Your task to perform on an android device: open device folders in google photos Image 0: 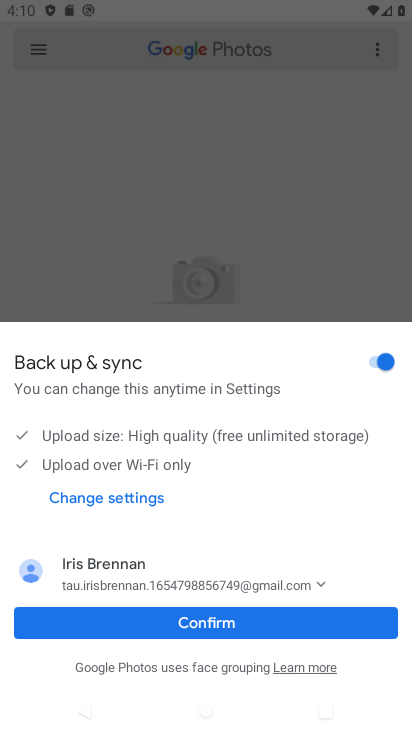
Step 0: press home button
Your task to perform on an android device: open device folders in google photos Image 1: 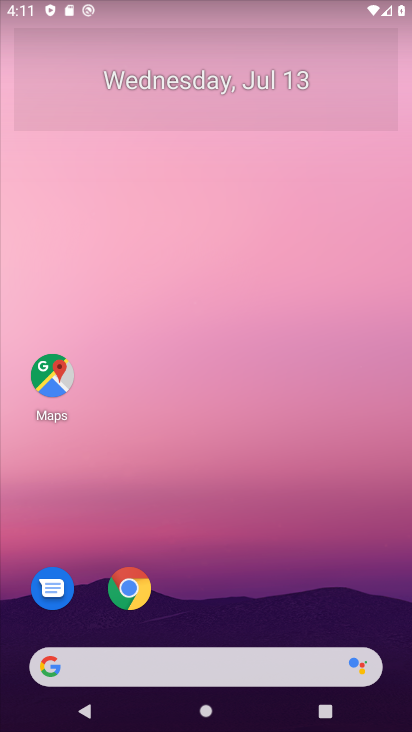
Step 1: drag from (16, 716) to (162, 330)
Your task to perform on an android device: open device folders in google photos Image 2: 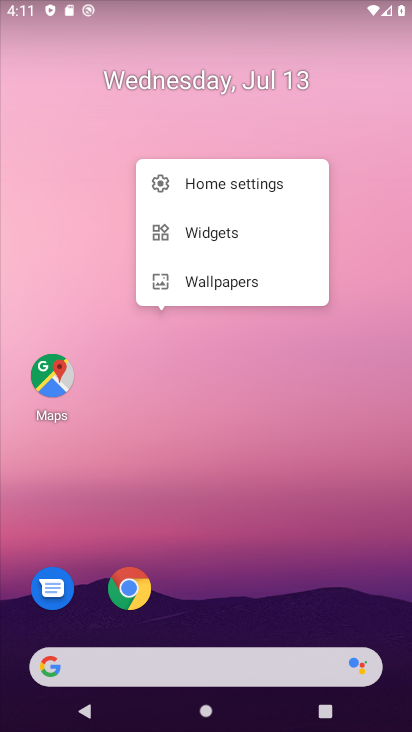
Step 2: drag from (38, 697) to (325, 22)
Your task to perform on an android device: open device folders in google photos Image 3: 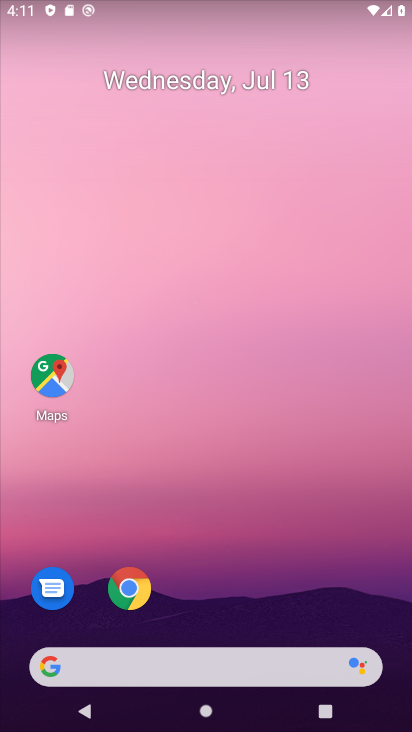
Step 3: drag from (52, 710) to (345, 184)
Your task to perform on an android device: open device folders in google photos Image 4: 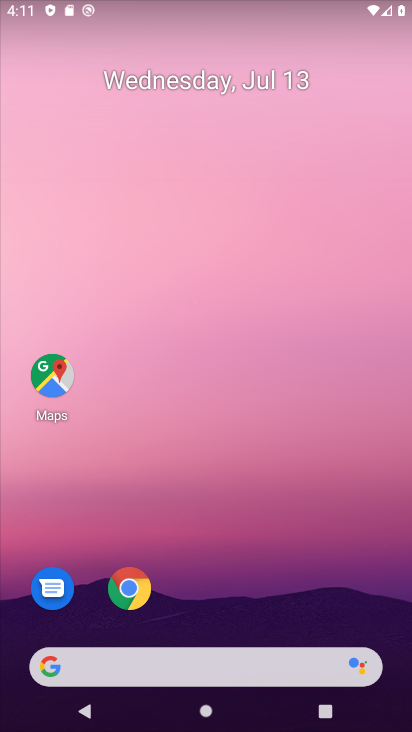
Step 4: drag from (57, 701) to (357, 69)
Your task to perform on an android device: open device folders in google photos Image 5: 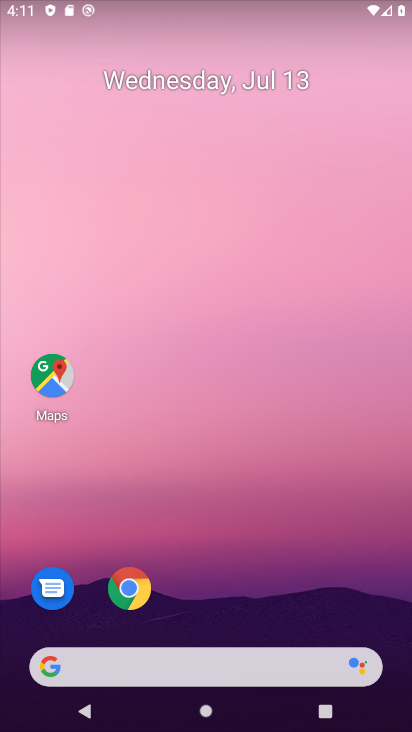
Step 5: drag from (75, 615) to (194, 152)
Your task to perform on an android device: open device folders in google photos Image 6: 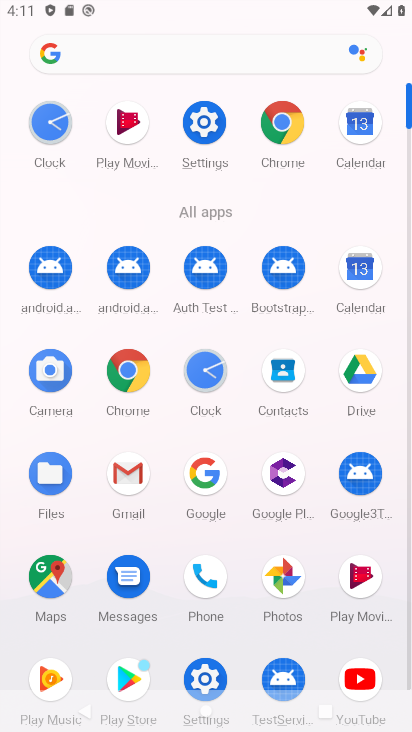
Step 6: click (274, 577)
Your task to perform on an android device: open device folders in google photos Image 7: 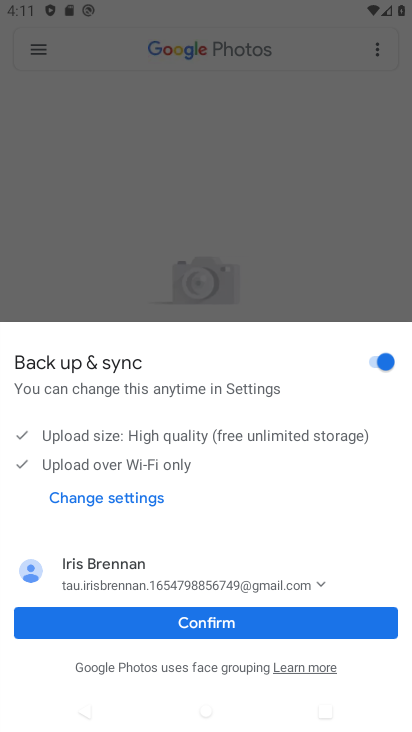
Step 7: click (236, 627)
Your task to perform on an android device: open device folders in google photos Image 8: 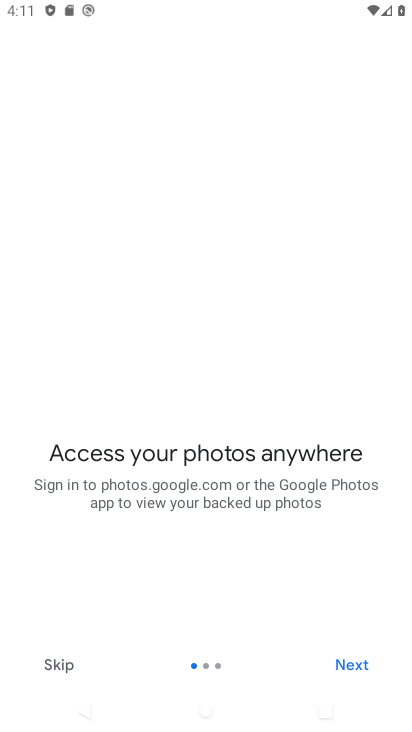
Step 8: click (352, 663)
Your task to perform on an android device: open device folders in google photos Image 9: 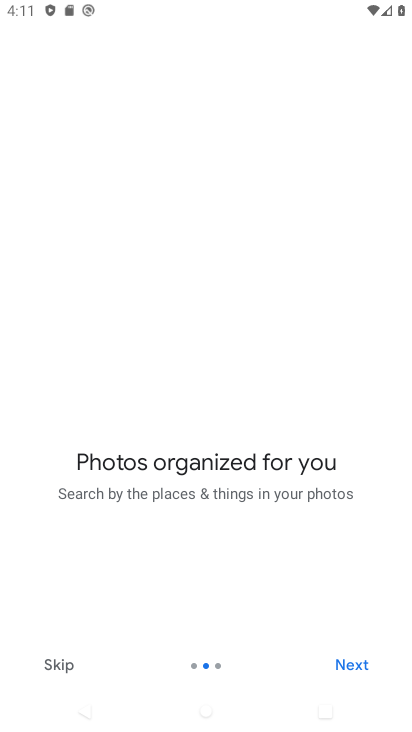
Step 9: click (348, 668)
Your task to perform on an android device: open device folders in google photos Image 10: 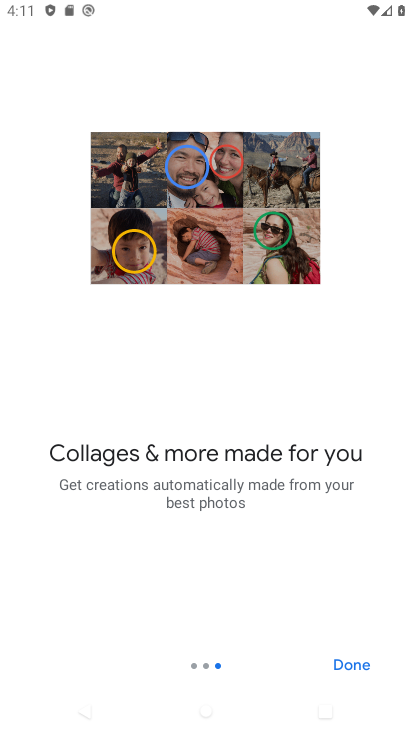
Step 10: click (350, 652)
Your task to perform on an android device: open device folders in google photos Image 11: 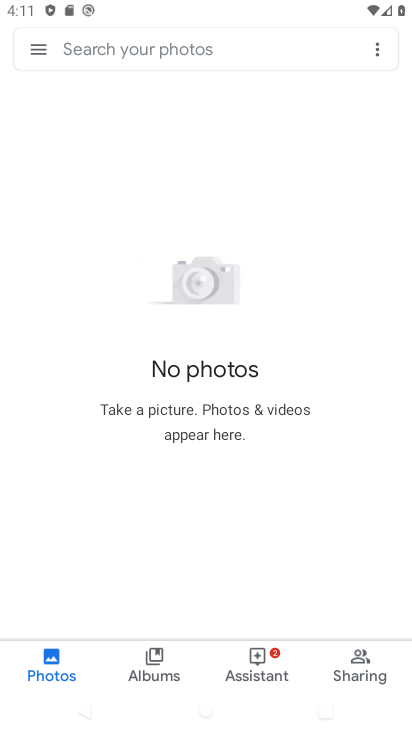
Step 11: click (37, 41)
Your task to perform on an android device: open device folders in google photos Image 12: 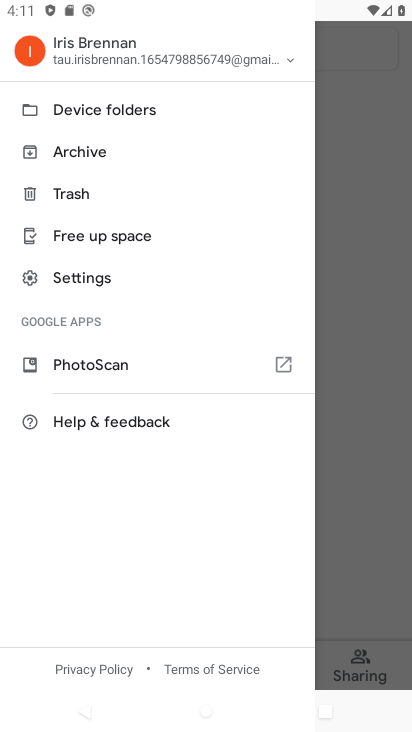
Step 12: click (77, 116)
Your task to perform on an android device: open device folders in google photos Image 13: 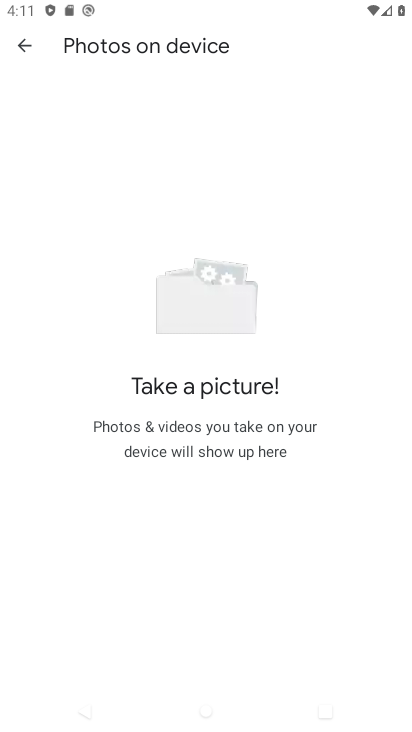
Step 13: task complete